Your task to perform on an android device: turn off airplane mode Image 0: 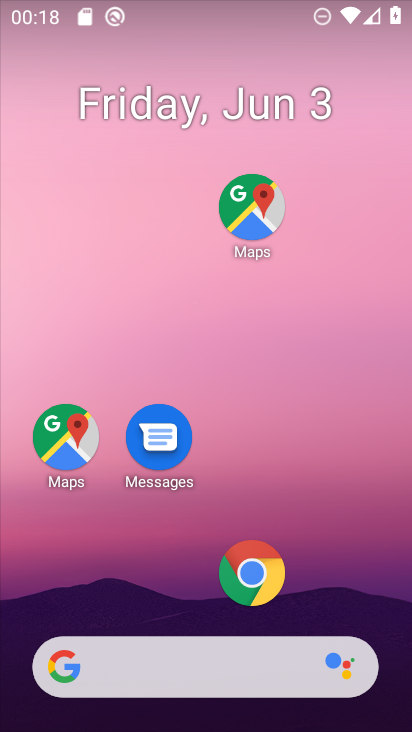
Step 0: drag from (339, 581) to (263, 142)
Your task to perform on an android device: turn off airplane mode Image 1: 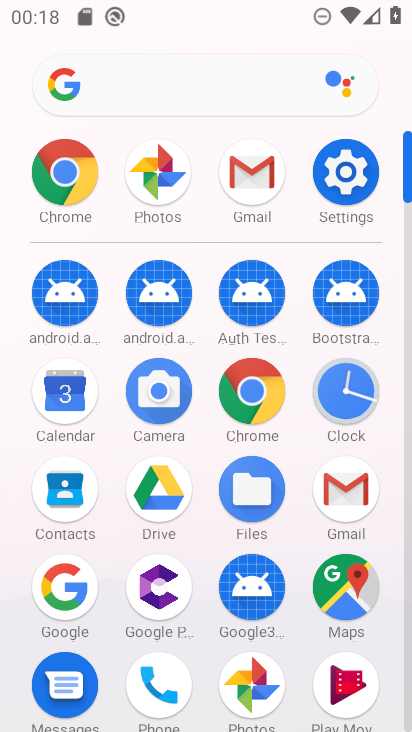
Step 1: click (329, 164)
Your task to perform on an android device: turn off airplane mode Image 2: 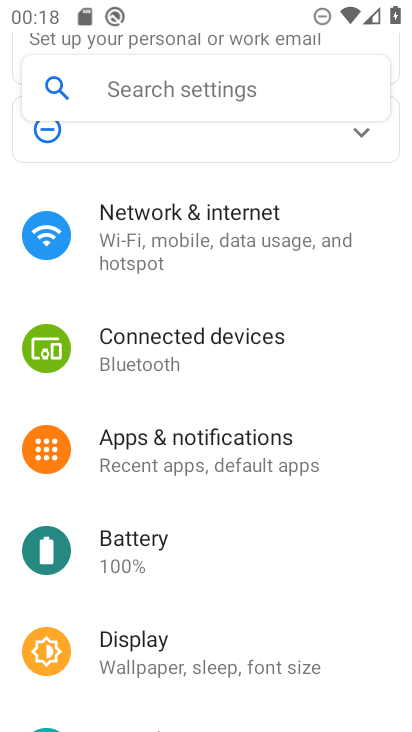
Step 2: click (173, 216)
Your task to perform on an android device: turn off airplane mode Image 3: 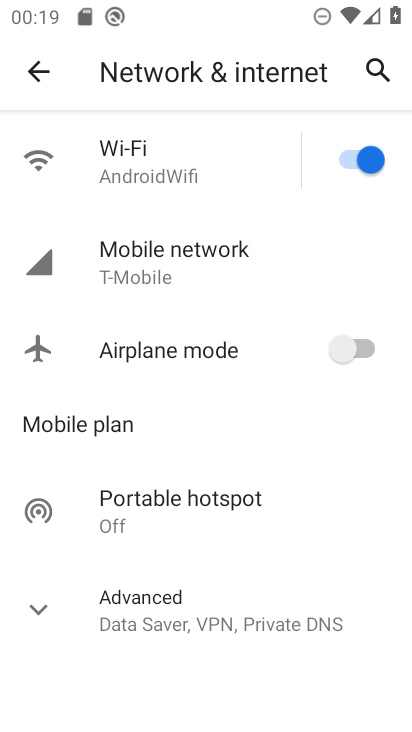
Step 3: task complete